Your task to perform on an android device: Open wifi settings Image 0: 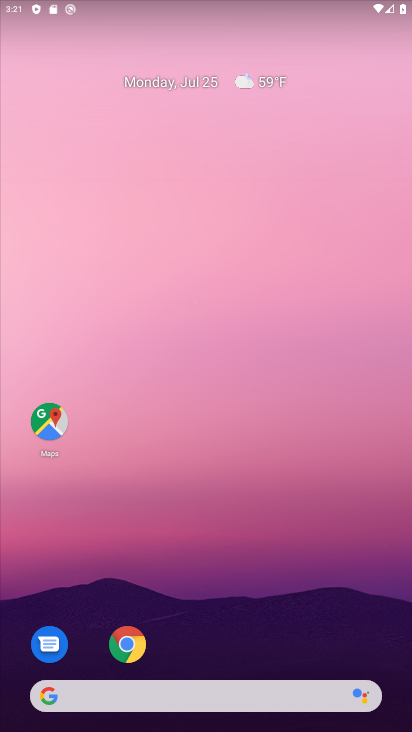
Step 0: drag from (247, 670) to (251, 184)
Your task to perform on an android device: Open wifi settings Image 1: 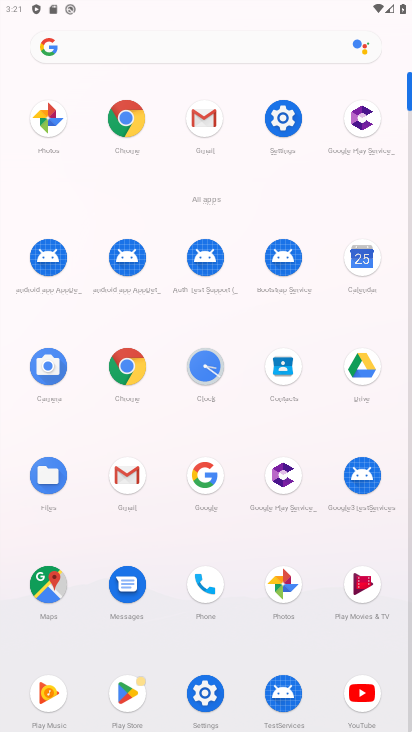
Step 1: click (284, 126)
Your task to perform on an android device: Open wifi settings Image 2: 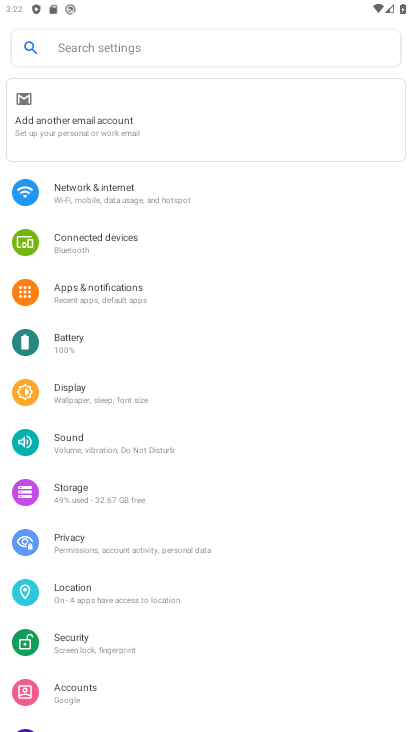
Step 2: click (138, 199)
Your task to perform on an android device: Open wifi settings Image 3: 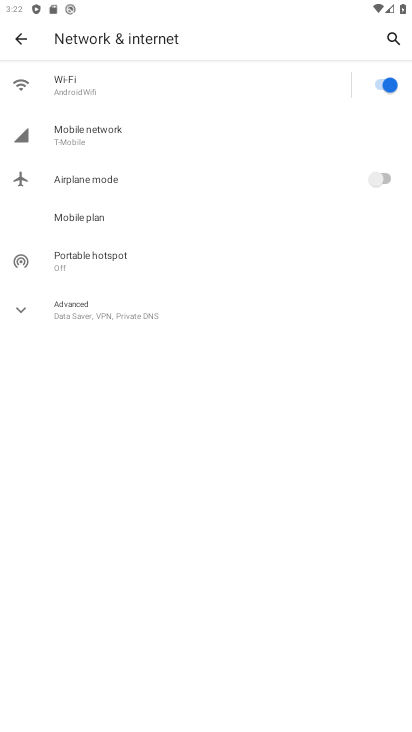
Step 3: click (67, 78)
Your task to perform on an android device: Open wifi settings Image 4: 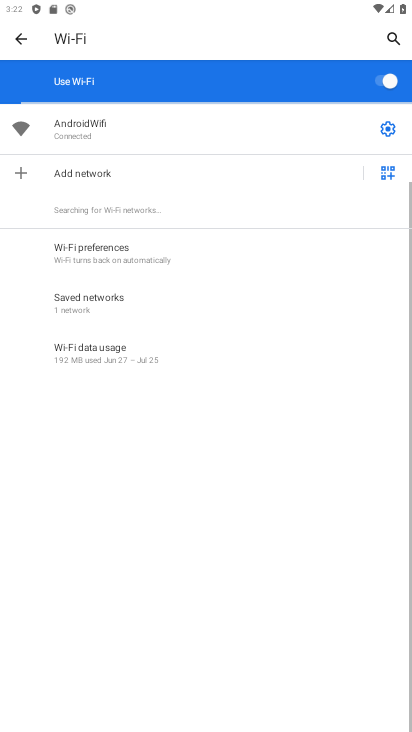
Step 4: click (382, 130)
Your task to perform on an android device: Open wifi settings Image 5: 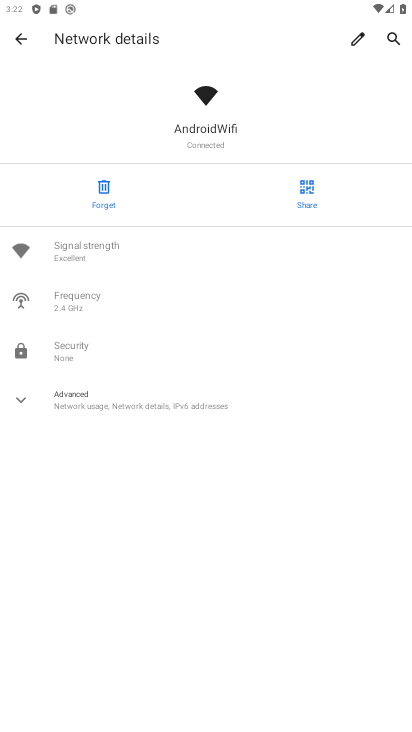
Step 5: click (112, 409)
Your task to perform on an android device: Open wifi settings Image 6: 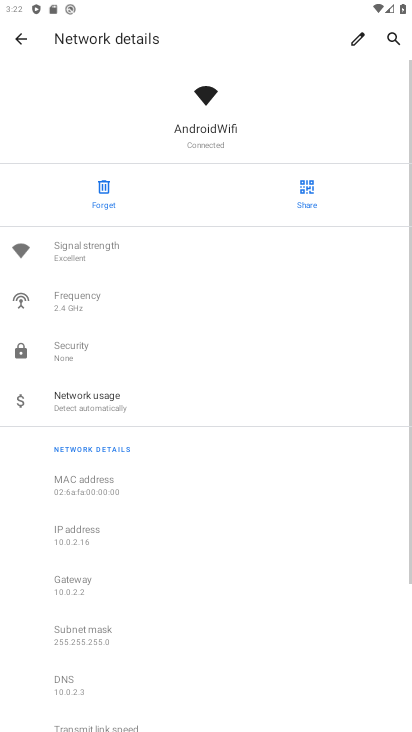
Step 6: task complete